Your task to perform on an android device: See recent photos Image 0: 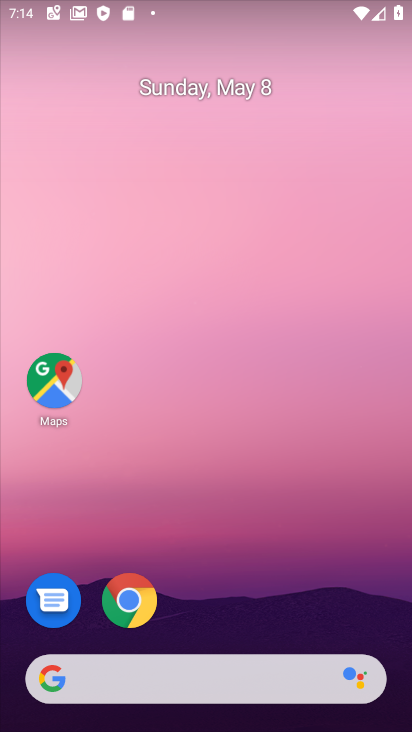
Step 0: drag from (288, 699) to (252, 220)
Your task to perform on an android device: See recent photos Image 1: 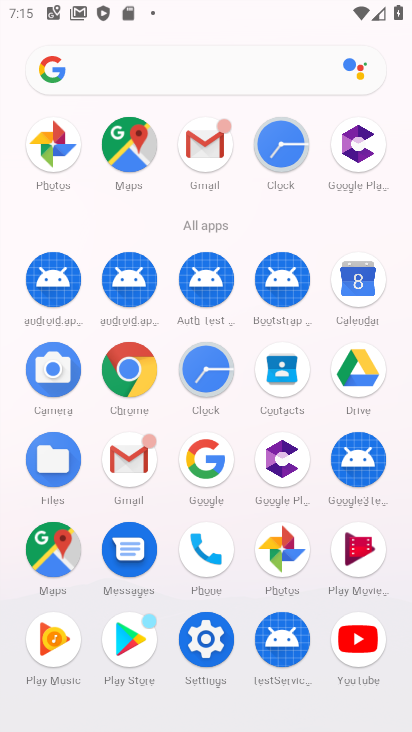
Step 1: click (291, 562)
Your task to perform on an android device: See recent photos Image 2: 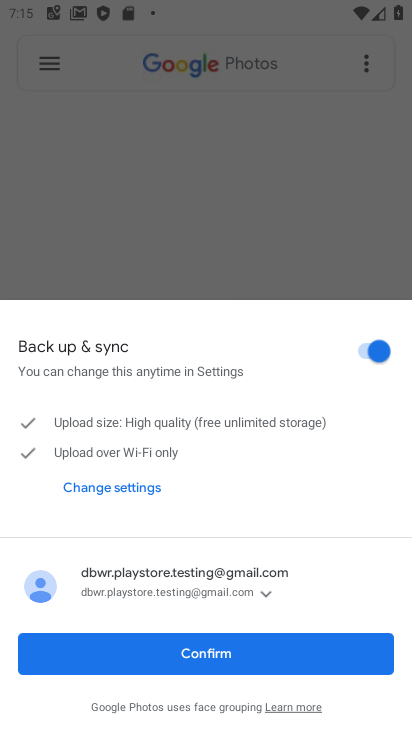
Step 2: click (221, 649)
Your task to perform on an android device: See recent photos Image 3: 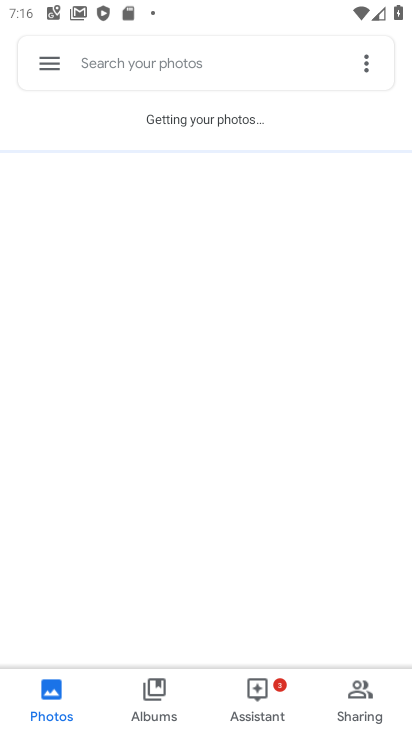
Step 3: click (199, 496)
Your task to perform on an android device: See recent photos Image 4: 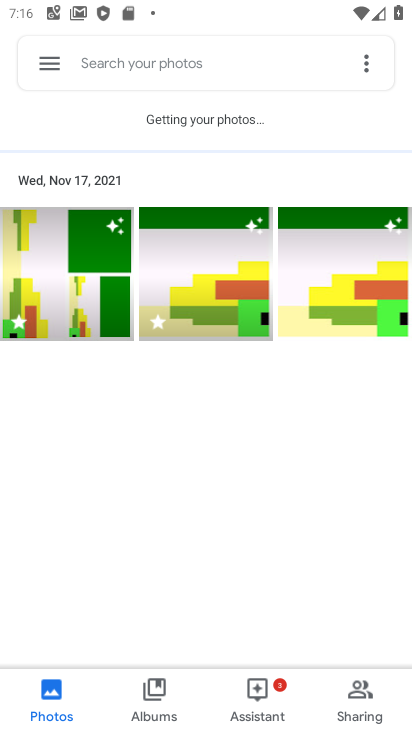
Step 4: task complete